Your task to perform on an android device: What's the weather going to be tomorrow? Image 0: 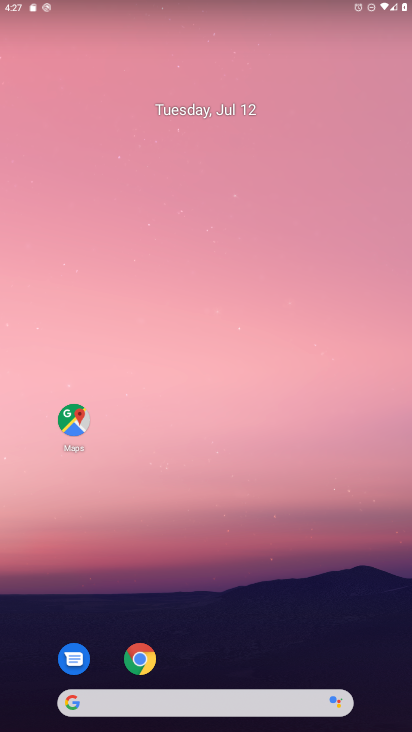
Step 0: press home button
Your task to perform on an android device: What's the weather going to be tomorrow? Image 1: 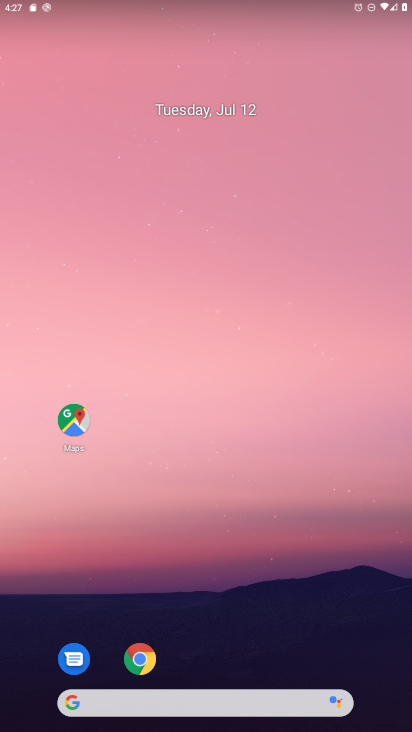
Step 1: drag from (202, 652) to (188, 114)
Your task to perform on an android device: What's the weather going to be tomorrow? Image 2: 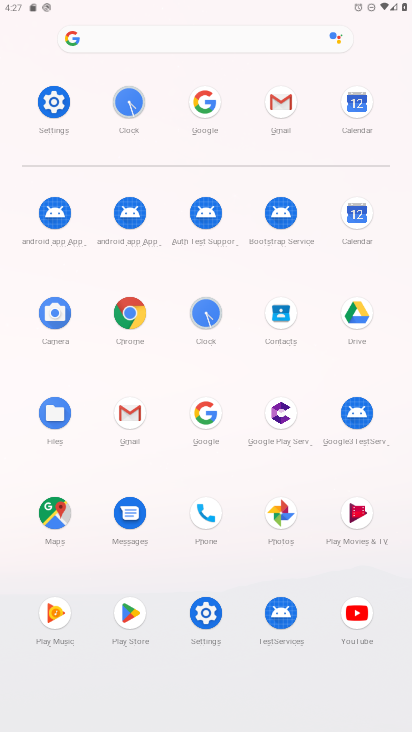
Step 2: click (200, 107)
Your task to perform on an android device: What's the weather going to be tomorrow? Image 3: 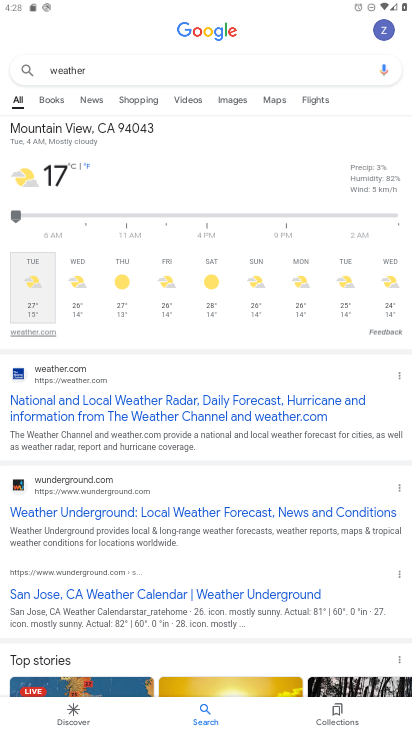
Step 3: click (31, 334)
Your task to perform on an android device: What's the weather going to be tomorrow? Image 4: 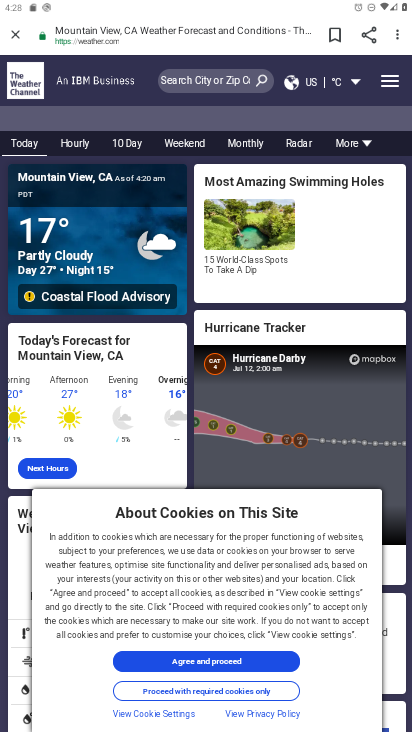
Step 4: click (172, 654)
Your task to perform on an android device: What's the weather going to be tomorrow? Image 5: 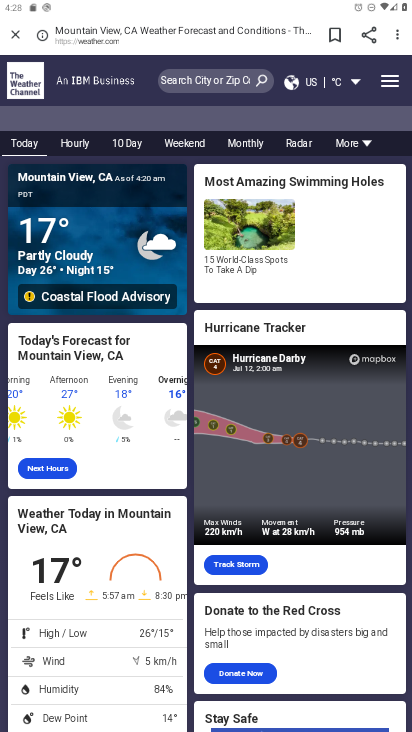
Step 5: task complete